Your task to perform on an android device: change notification settings in the gmail app Image 0: 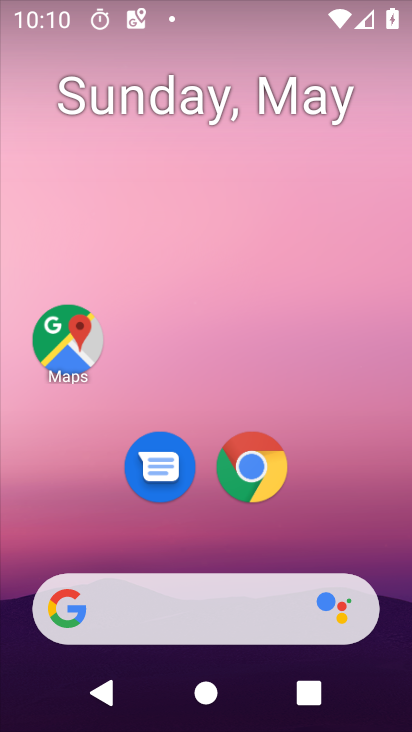
Step 0: drag from (200, 520) to (176, 224)
Your task to perform on an android device: change notification settings in the gmail app Image 1: 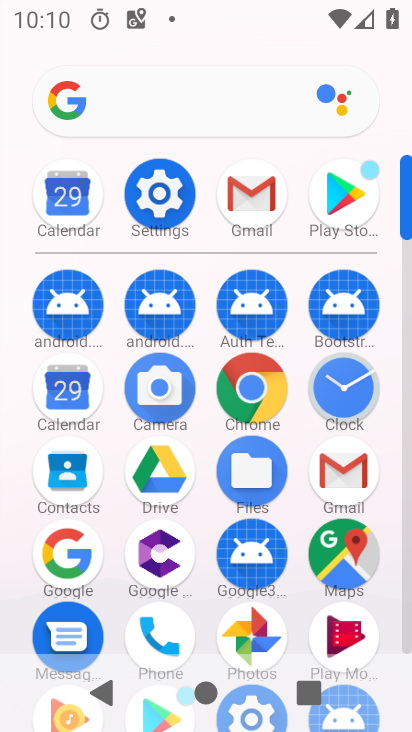
Step 1: click (256, 190)
Your task to perform on an android device: change notification settings in the gmail app Image 2: 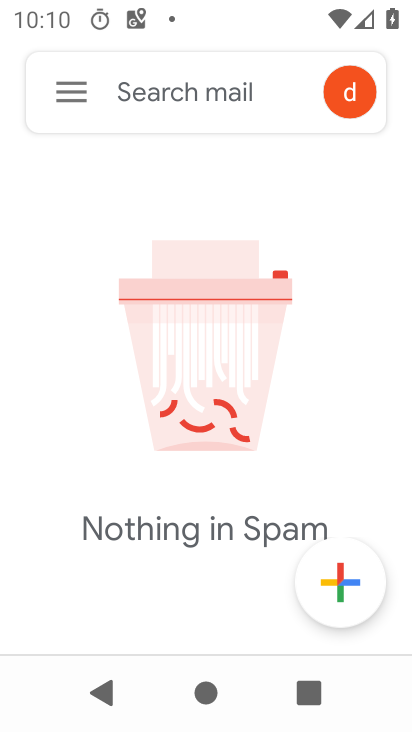
Step 2: click (73, 105)
Your task to perform on an android device: change notification settings in the gmail app Image 3: 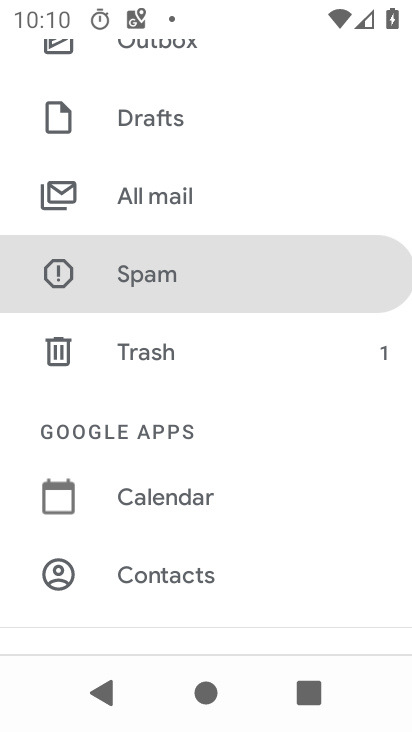
Step 3: drag from (192, 591) to (203, 345)
Your task to perform on an android device: change notification settings in the gmail app Image 4: 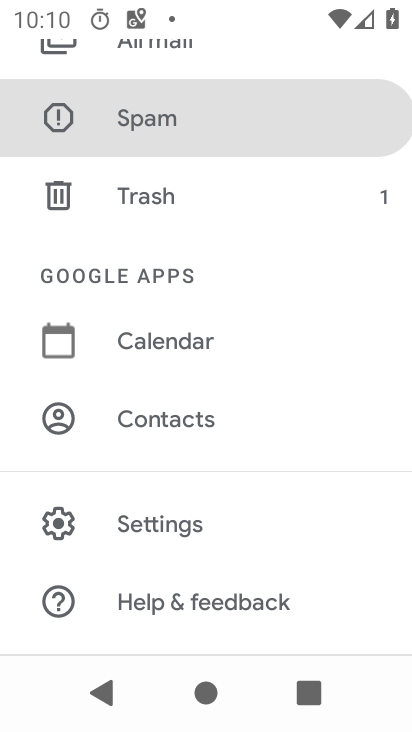
Step 4: click (177, 525)
Your task to perform on an android device: change notification settings in the gmail app Image 5: 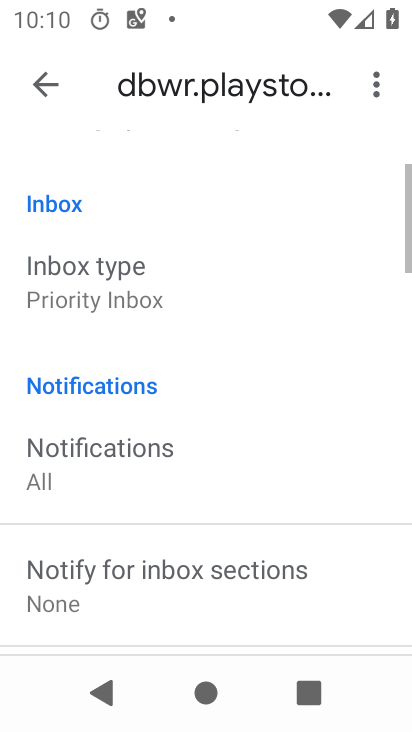
Step 5: drag from (216, 509) to (228, 242)
Your task to perform on an android device: change notification settings in the gmail app Image 6: 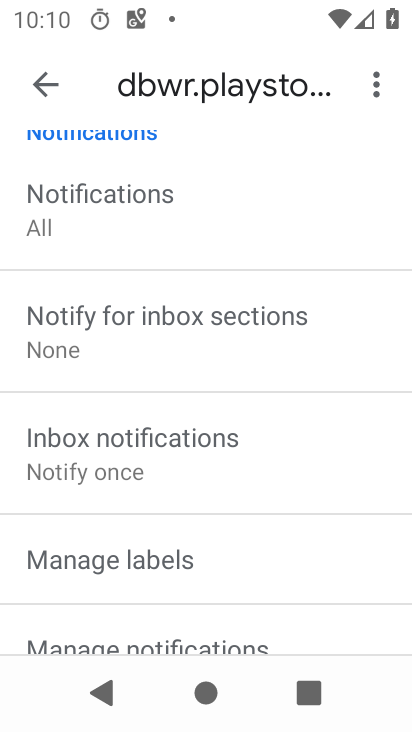
Step 6: drag from (228, 529) to (229, 313)
Your task to perform on an android device: change notification settings in the gmail app Image 7: 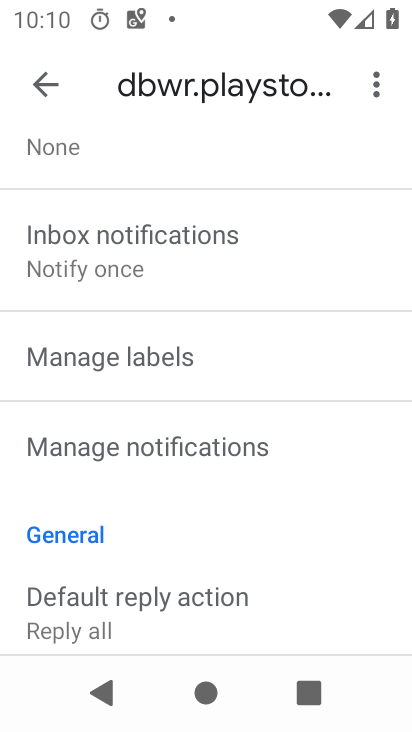
Step 7: drag from (250, 531) to (241, 359)
Your task to perform on an android device: change notification settings in the gmail app Image 8: 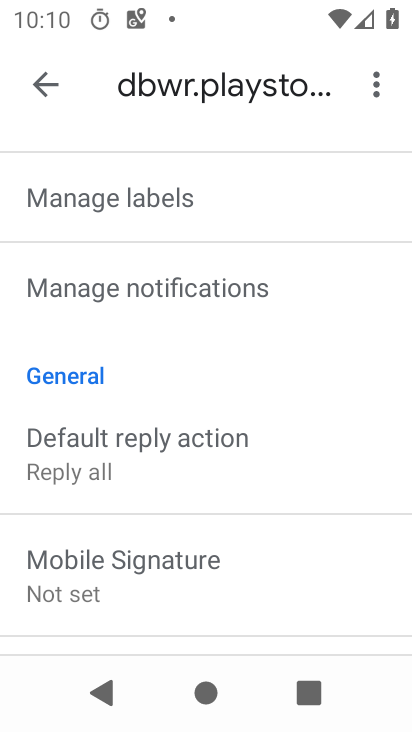
Step 8: click (192, 291)
Your task to perform on an android device: change notification settings in the gmail app Image 9: 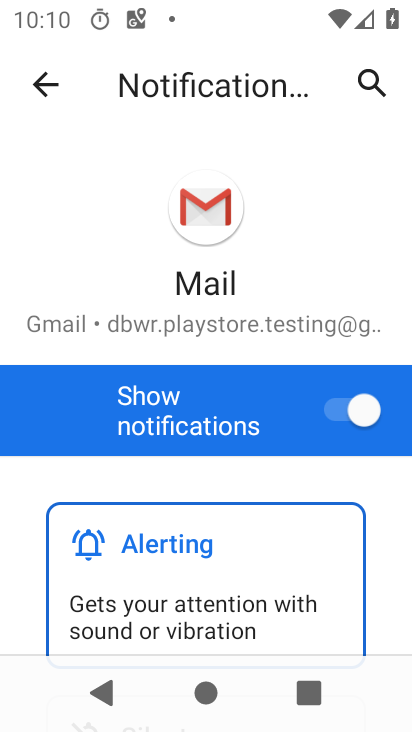
Step 9: click (335, 424)
Your task to perform on an android device: change notification settings in the gmail app Image 10: 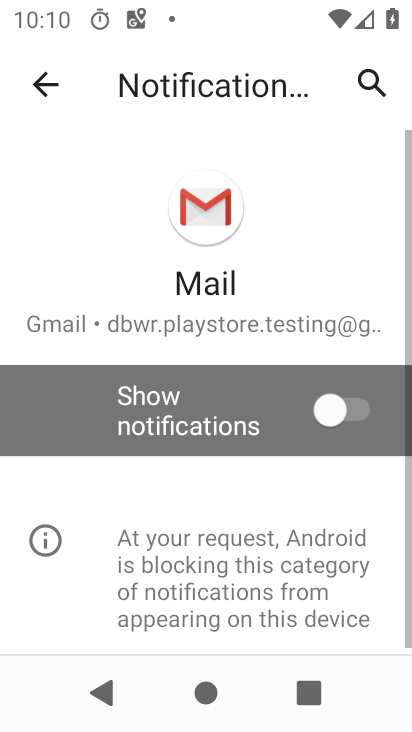
Step 10: task complete